Your task to perform on an android device: empty trash in the gmail app Image 0: 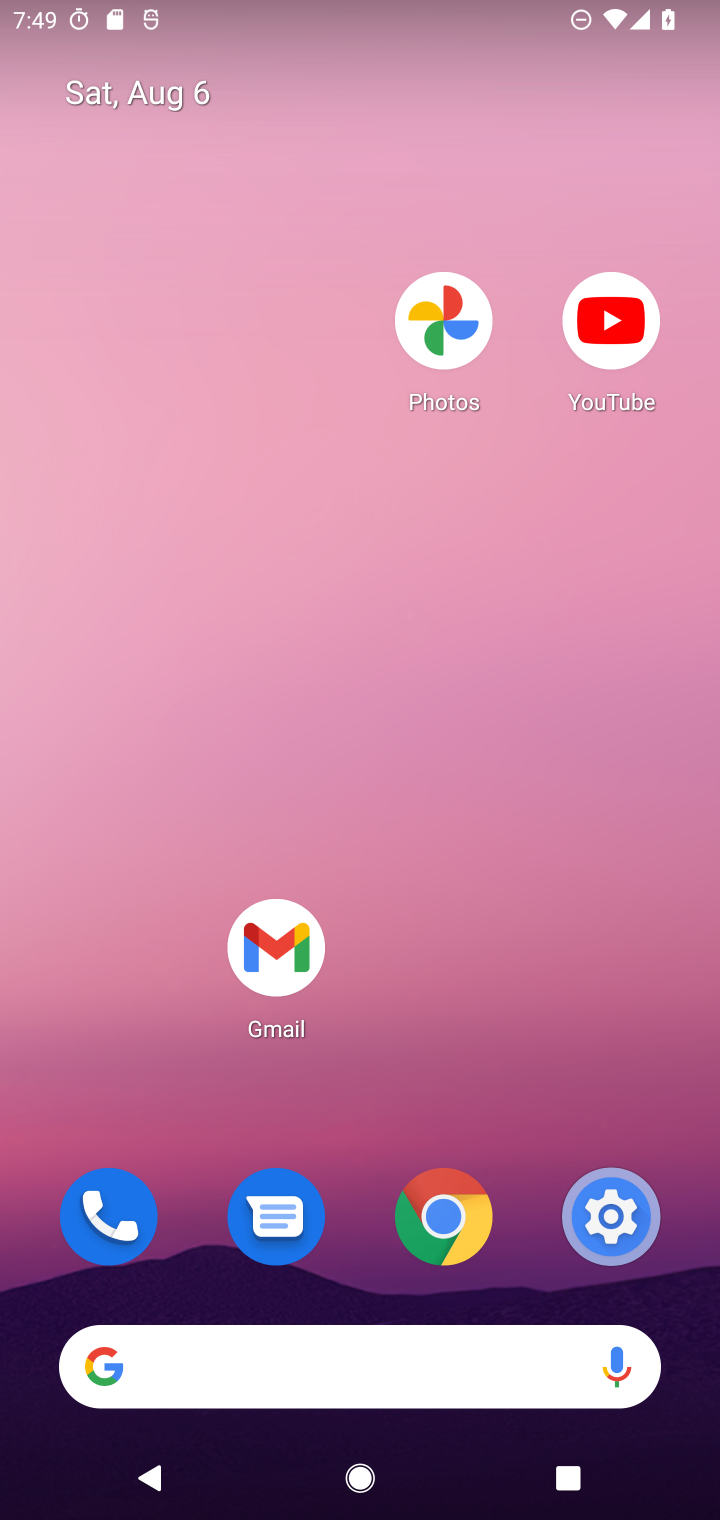
Step 0: drag from (496, 875) to (399, 188)
Your task to perform on an android device: empty trash in the gmail app Image 1: 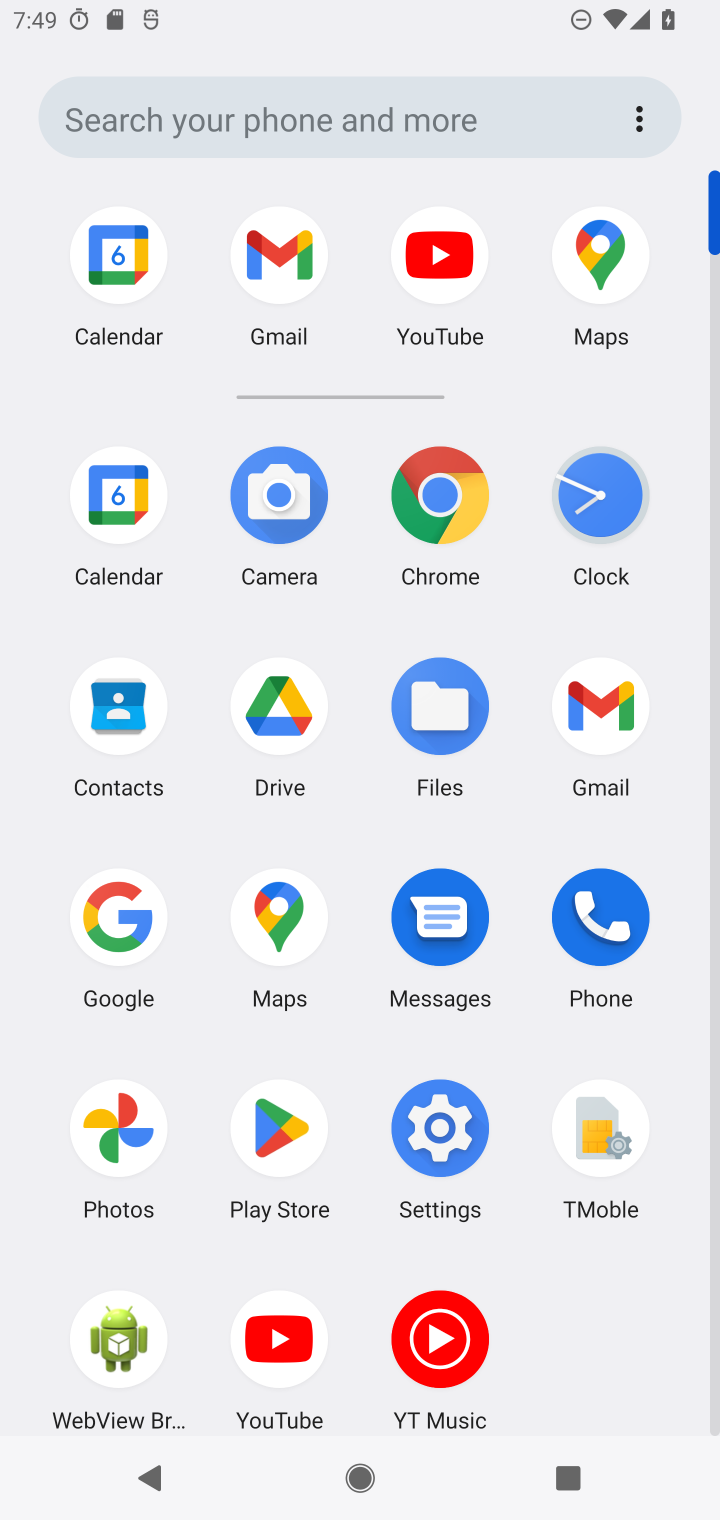
Step 1: click (594, 695)
Your task to perform on an android device: empty trash in the gmail app Image 2: 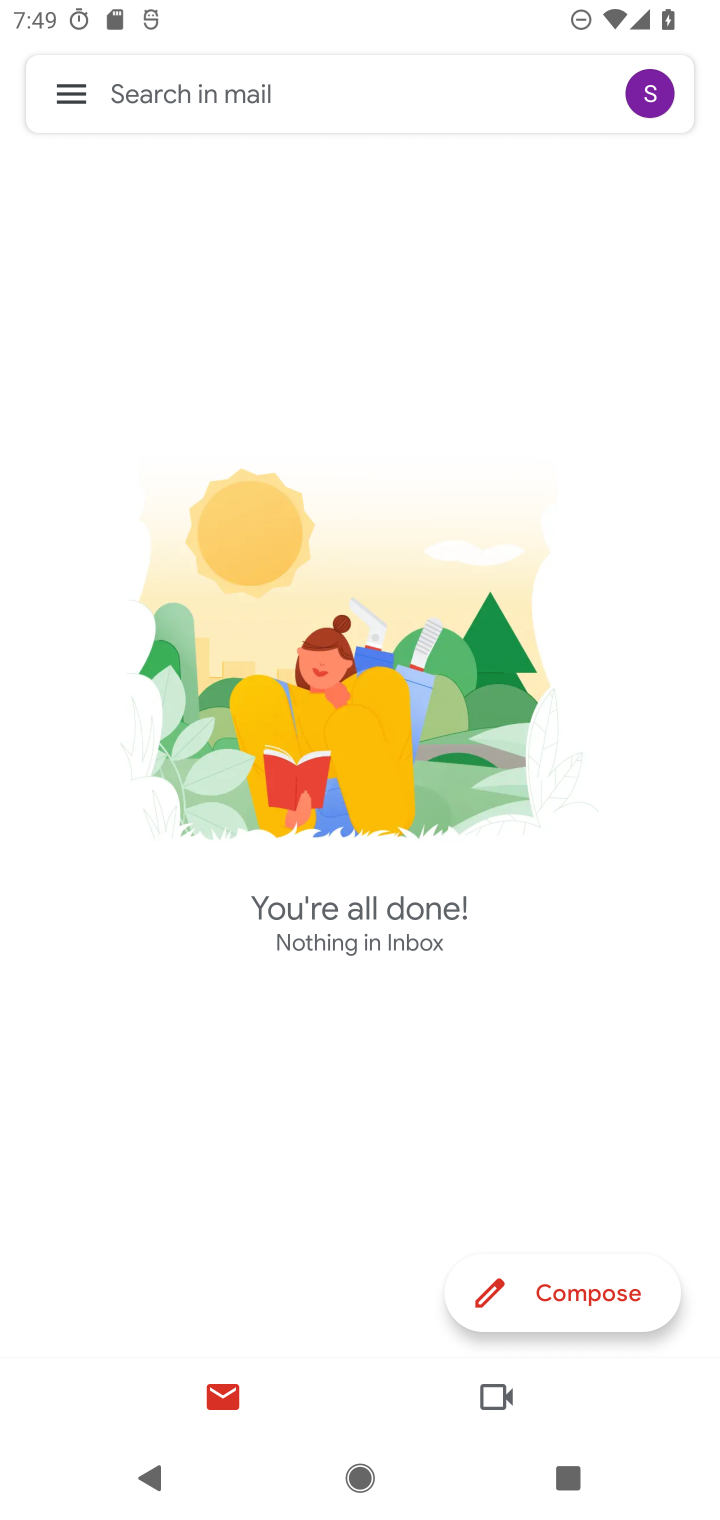
Step 2: click (75, 79)
Your task to perform on an android device: empty trash in the gmail app Image 3: 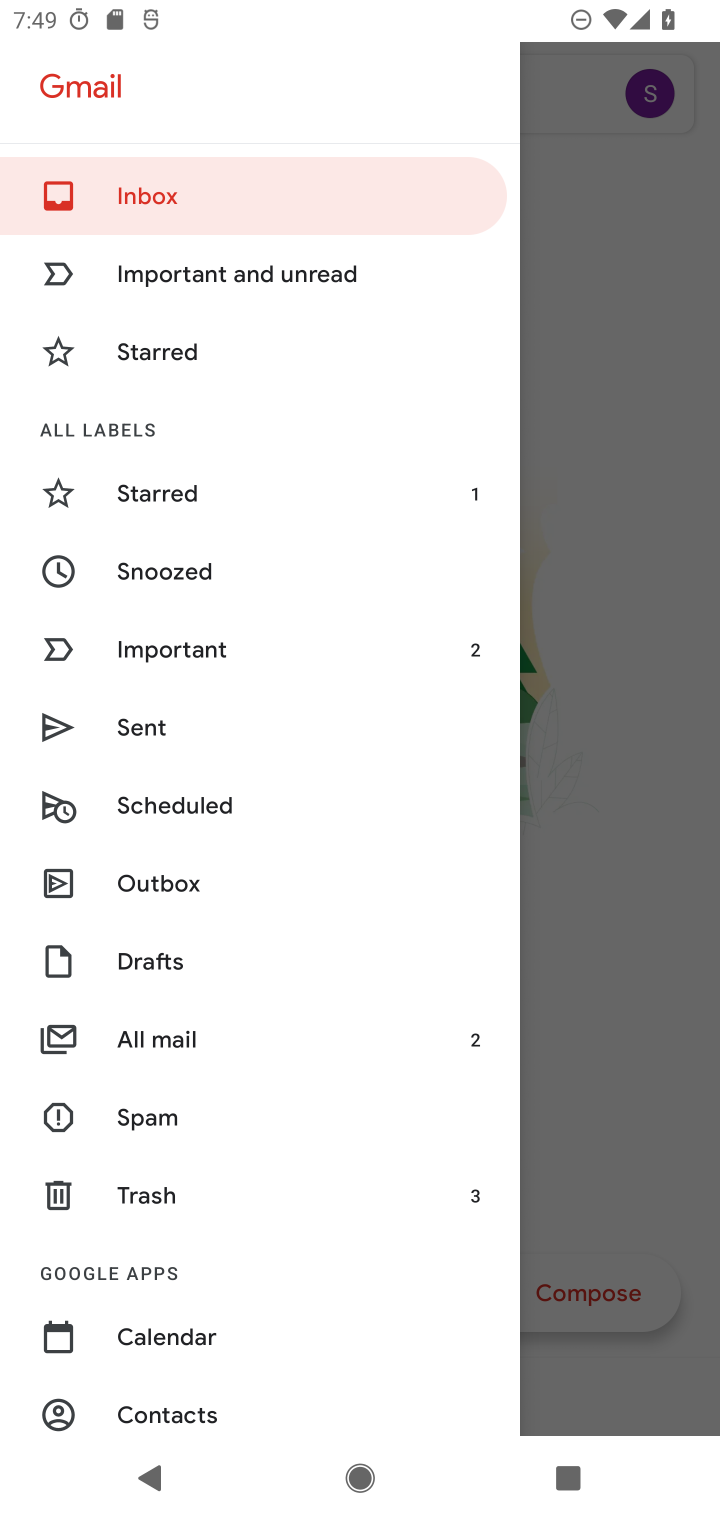
Step 3: click (160, 1196)
Your task to perform on an android device: empty trash in the gmail app Image 4: 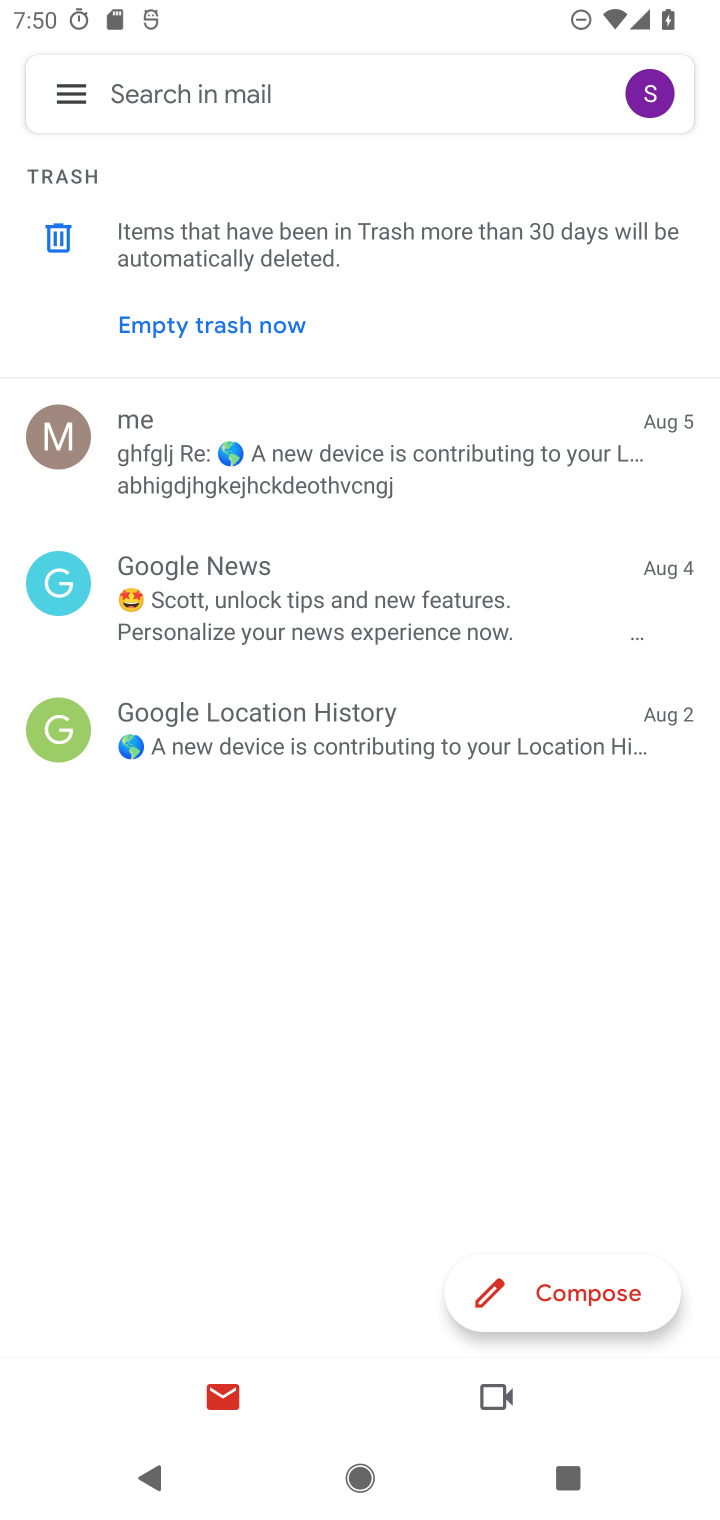
Step 4: click (211, 321)
Your task to perform on an android device: empty trash in the gmail app Image 5: 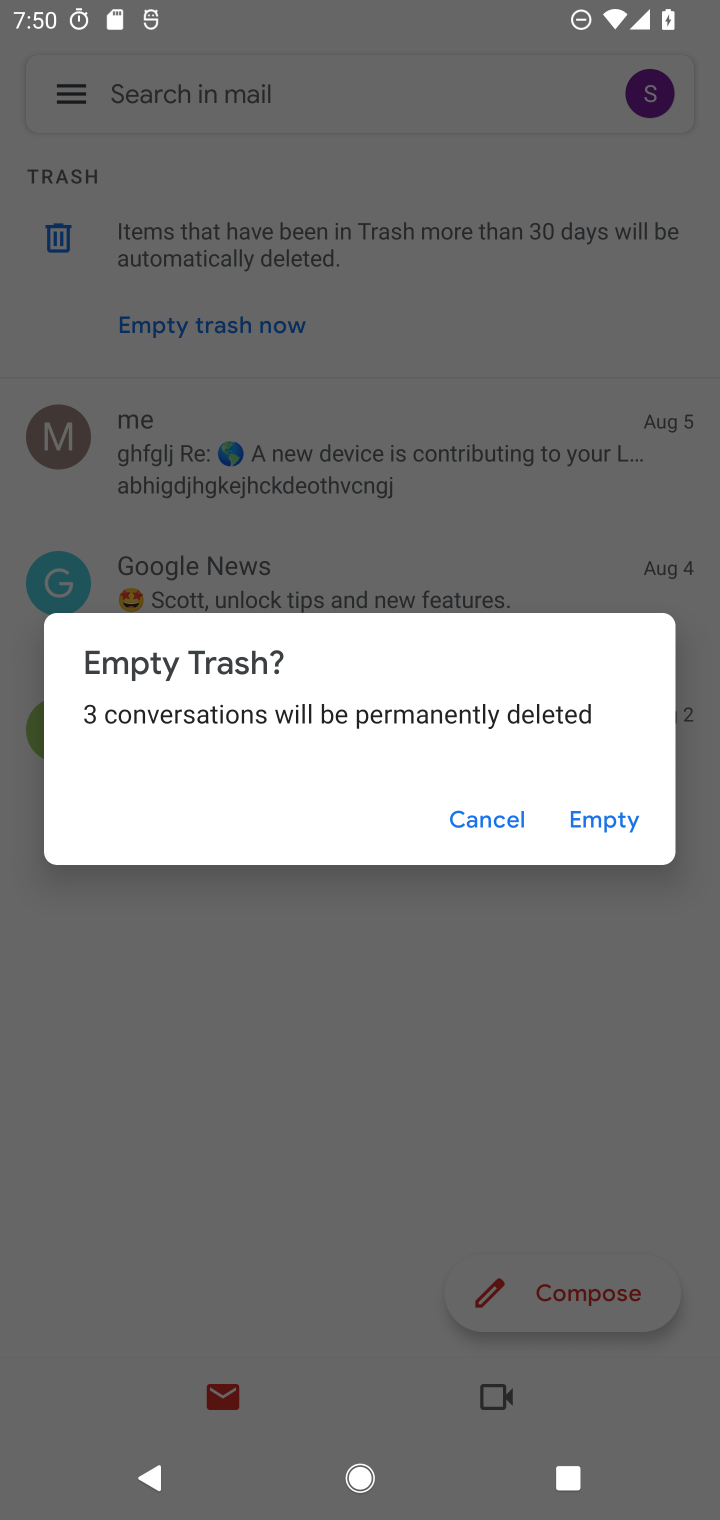
Step 5: click (618, 813)
Your task to perform on an android device: empty trash in the gmail app Image 6: 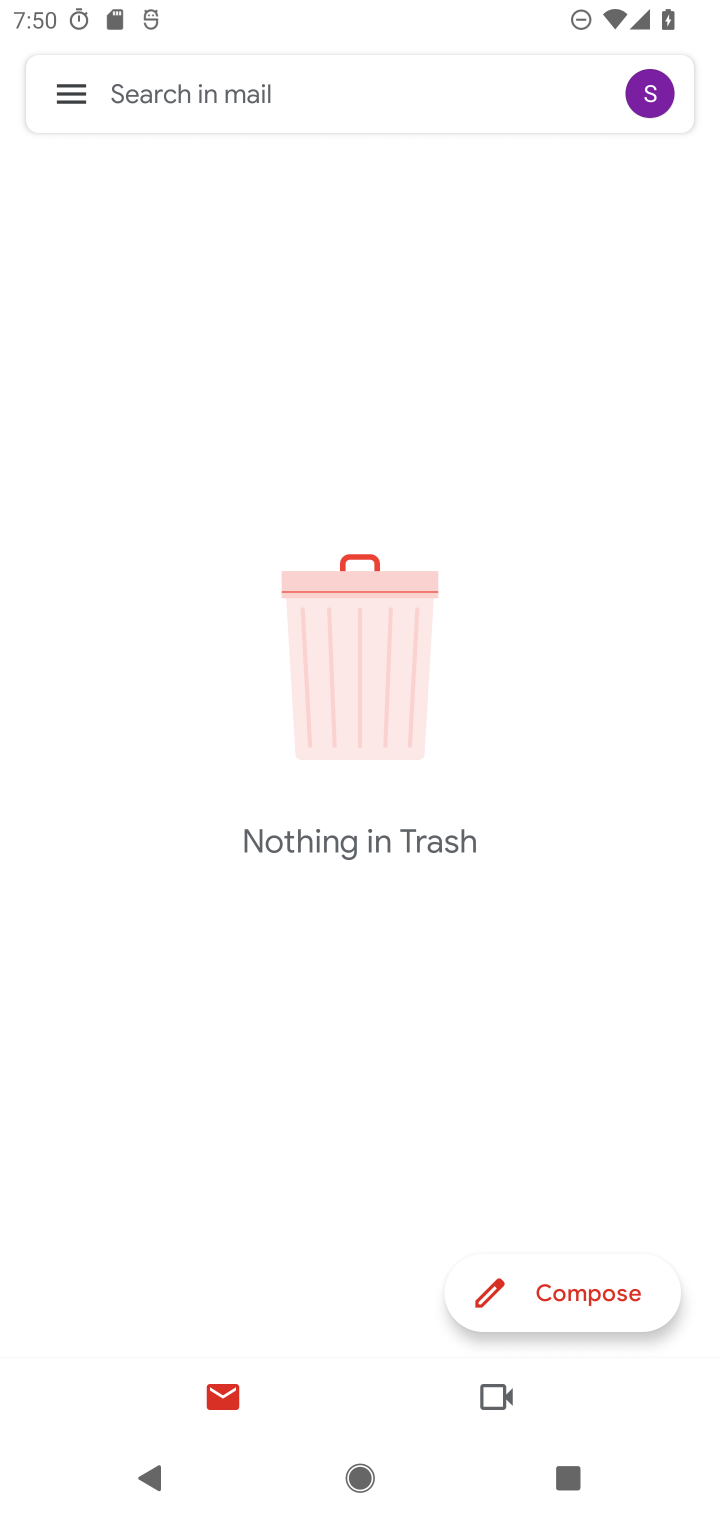
Step 6: task complete